Your task to perform on an android device: Toggle the flashlight Image 0: 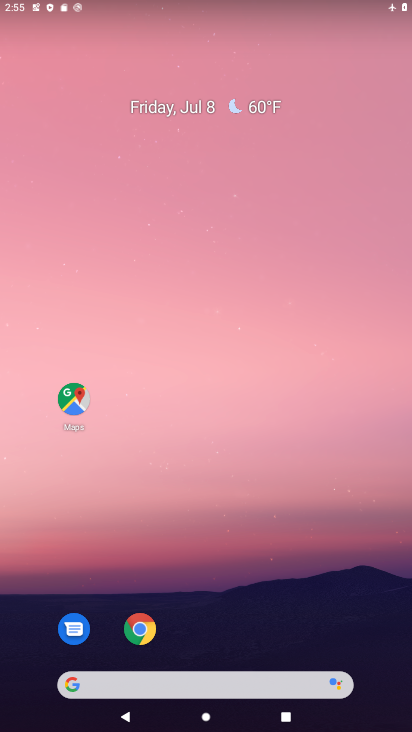
Step 0: drag from (213, 625) to (208, 243)
Your task to perform on an android device: Toggle the flashlight Image 1: 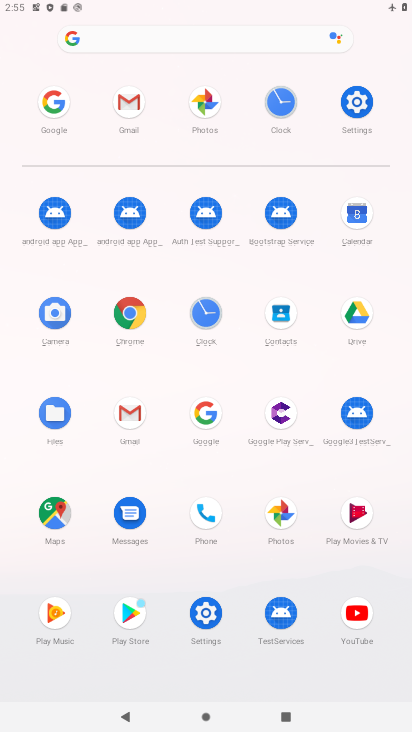
Step 1: click (354, 100)
Your task to perform on an android device: Toggle the flashlight Image 2: 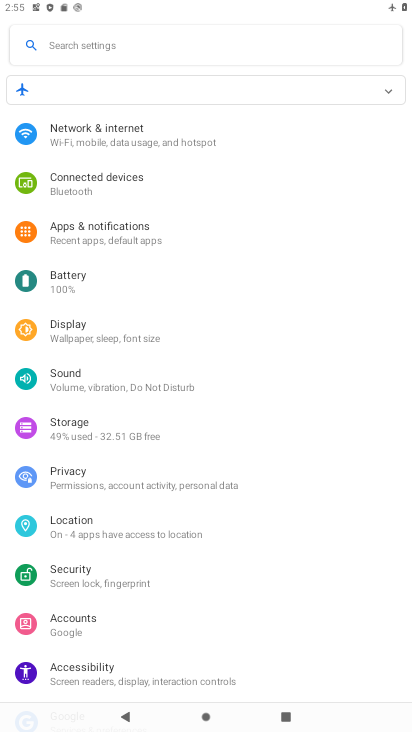
Step 2: task complete